Your task to perform on an android device: turn off wifi Image 0: 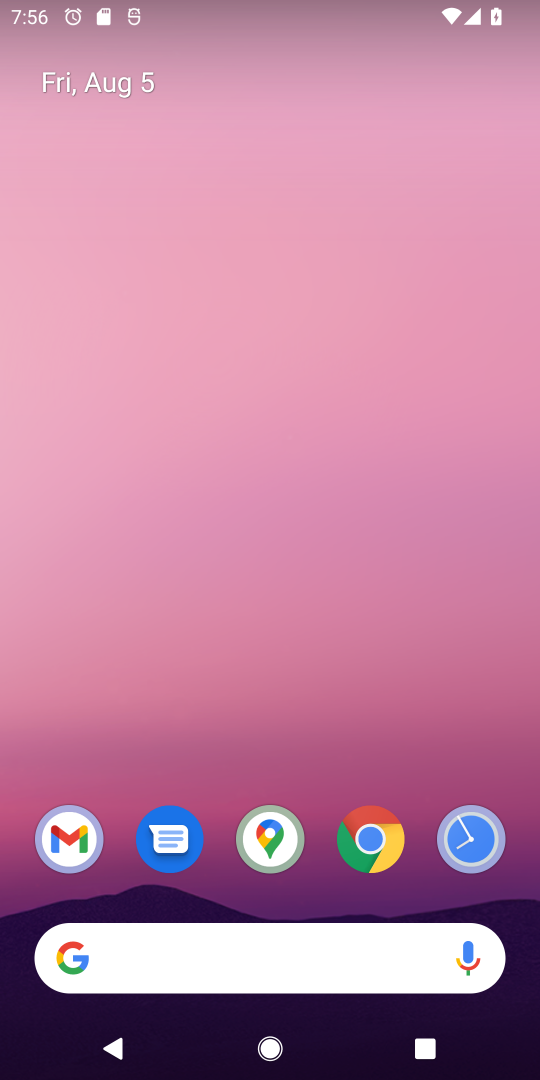
Step 0: drag from (337, 768) to (352, 167)
Your task to perform on an android device: turn off wifi Image 1: 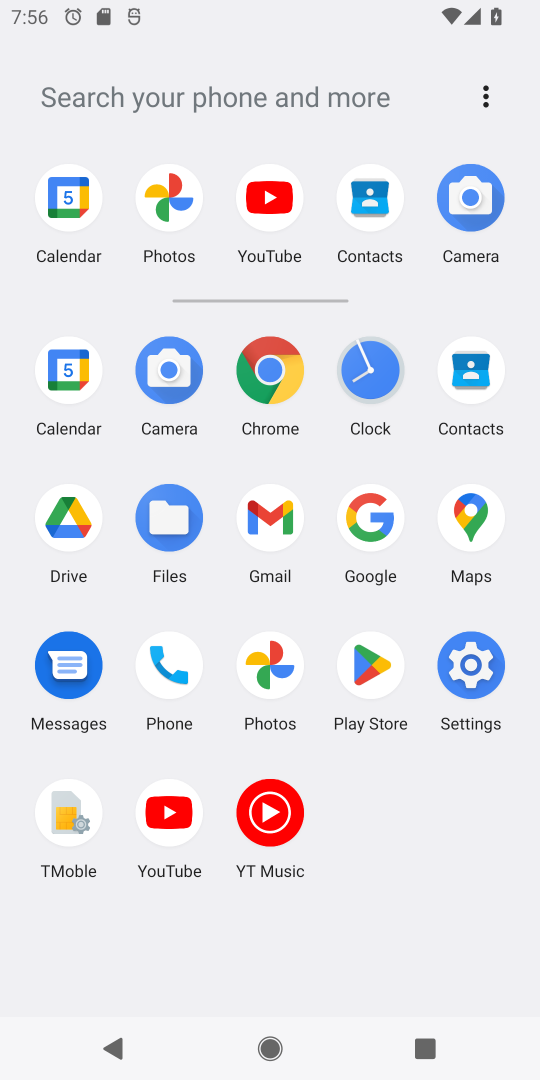
Step 1: click (456, 680)
Your task to perform on an android device: turn off wifi Image 2: 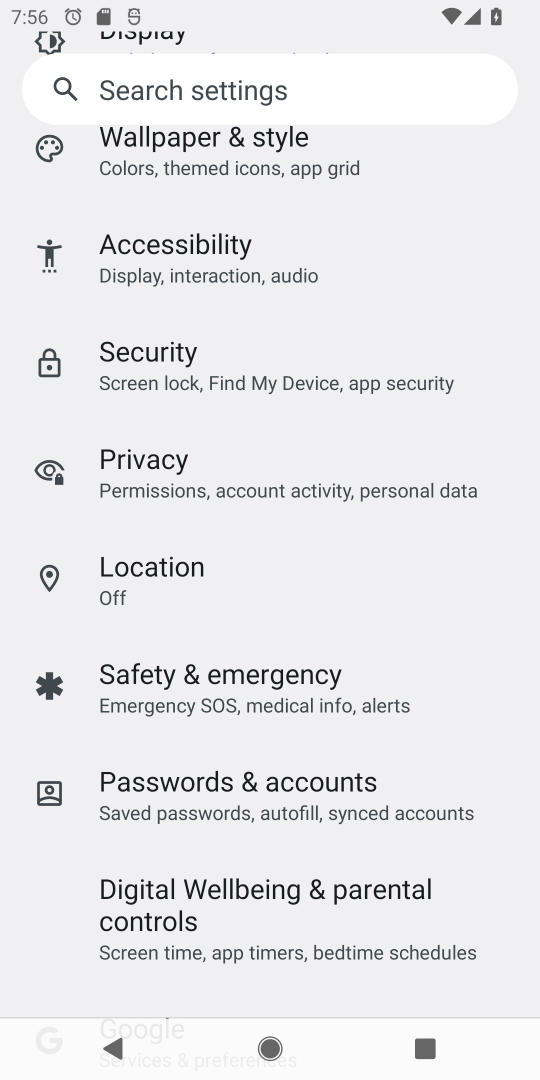
Step 2: drag from (295, 308) to (295, 803)
Your task to perform on an android device: turn off wifi Image 3: 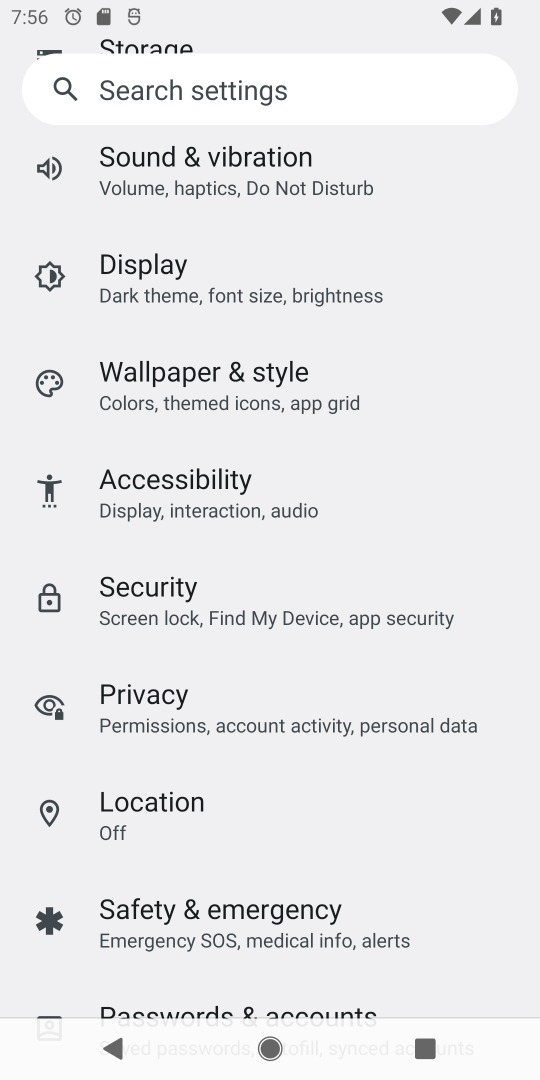
Step 3: drag from (191, 246) to (288, 840)
Your task to perform on an android device: turn off wifi Image 4: 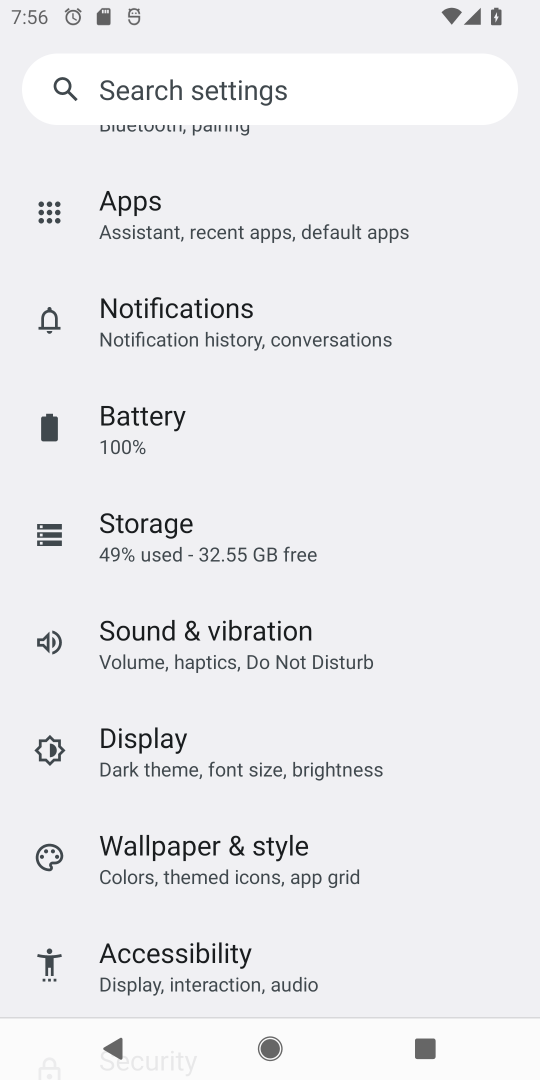
Step 4: drag from (242, 306) to (289, 901)
Your task to perform on an android device: turn off wifi Image 5: 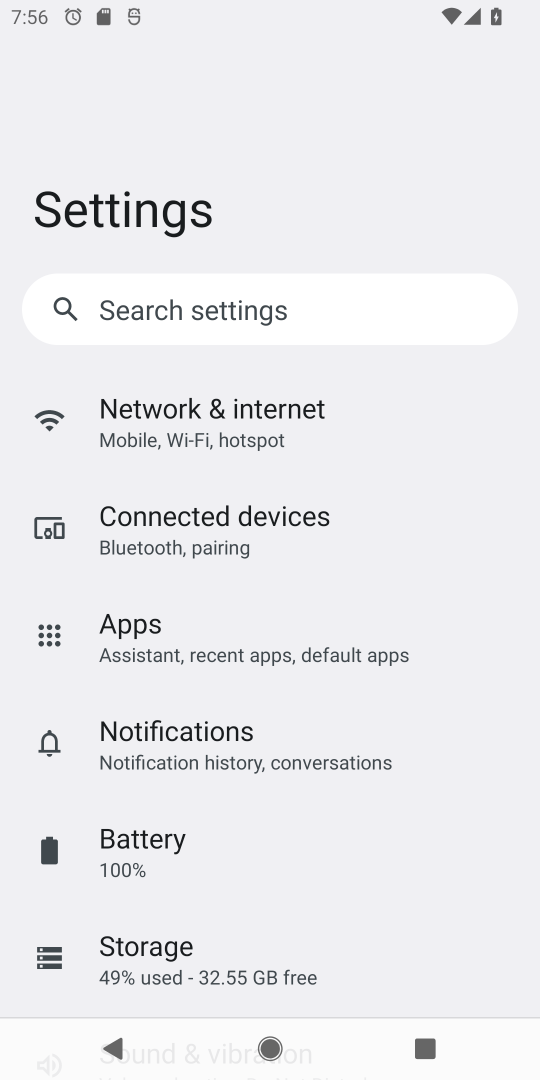
Step 5: click (208, 435)
Your task to perform on an android device: turn off wifi Image 6: 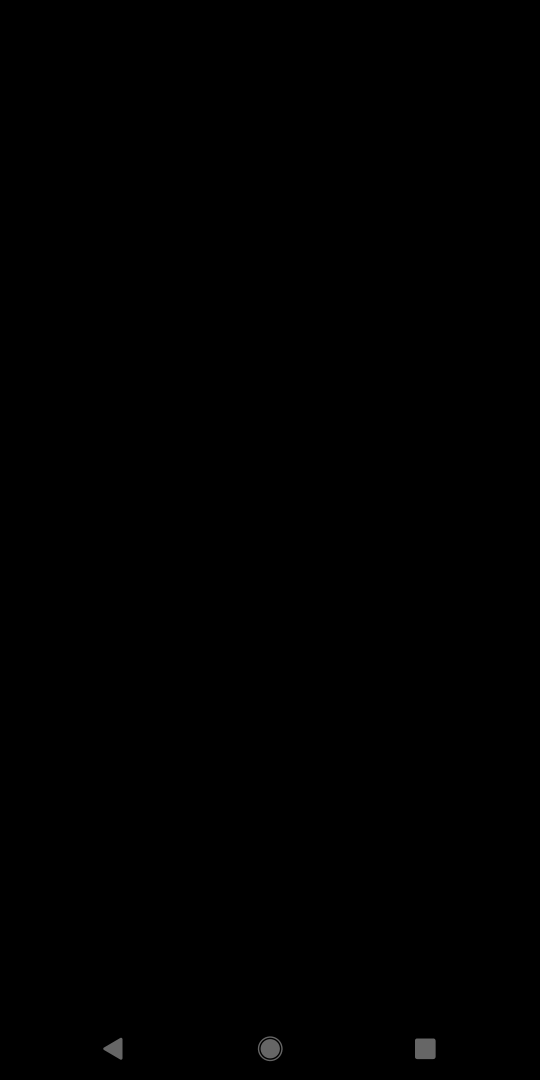
Step 6: click (208, 435)
Your task to perform on an android device: turn off wifi Image 7: 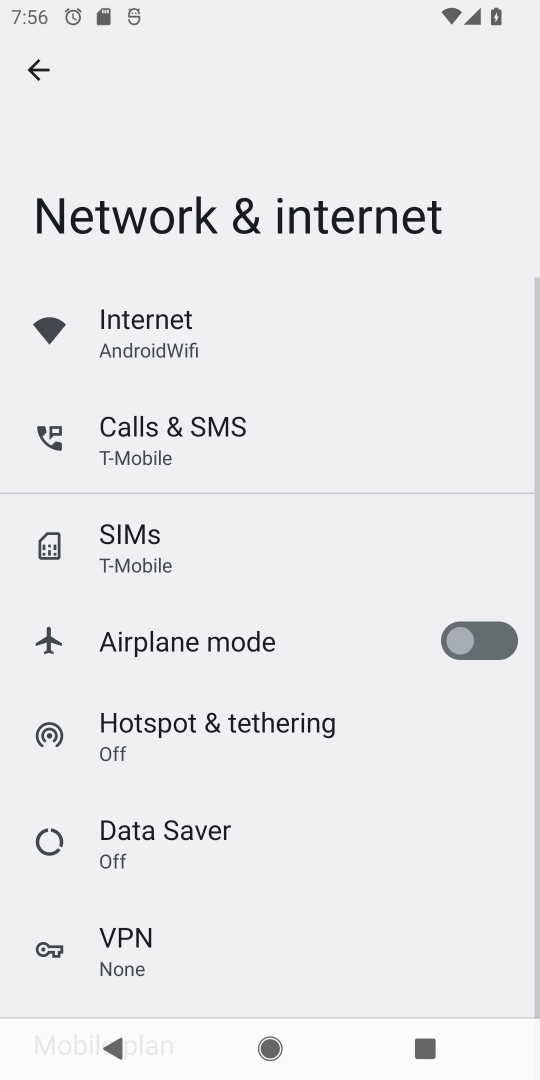
Step 7: click (154, 350)
Your task to perform on an android device: turn off wifi Image 8: 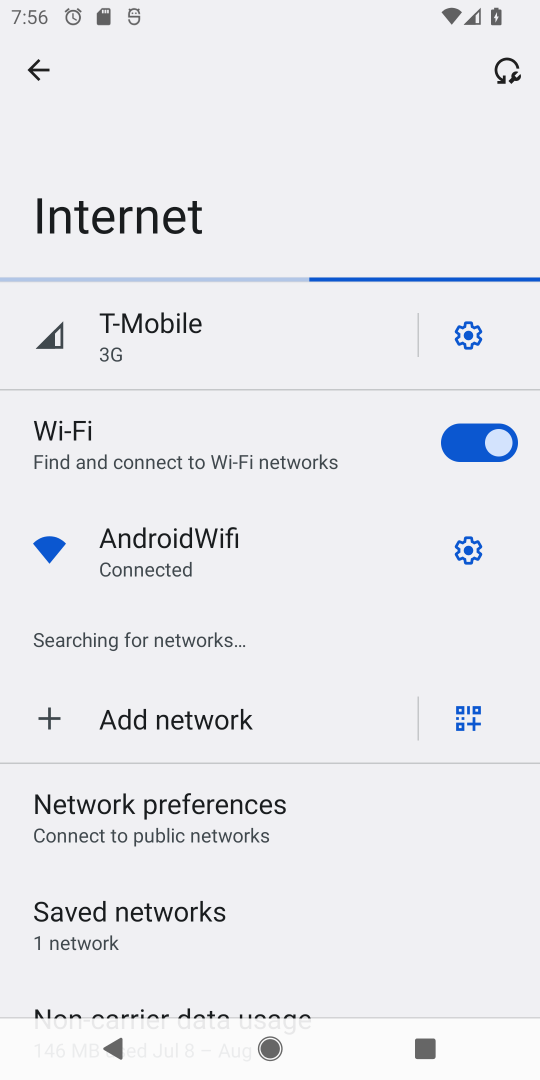
Step 8: click (453, 453)
Your task to perform on an android device: turn off wifi Image 9: 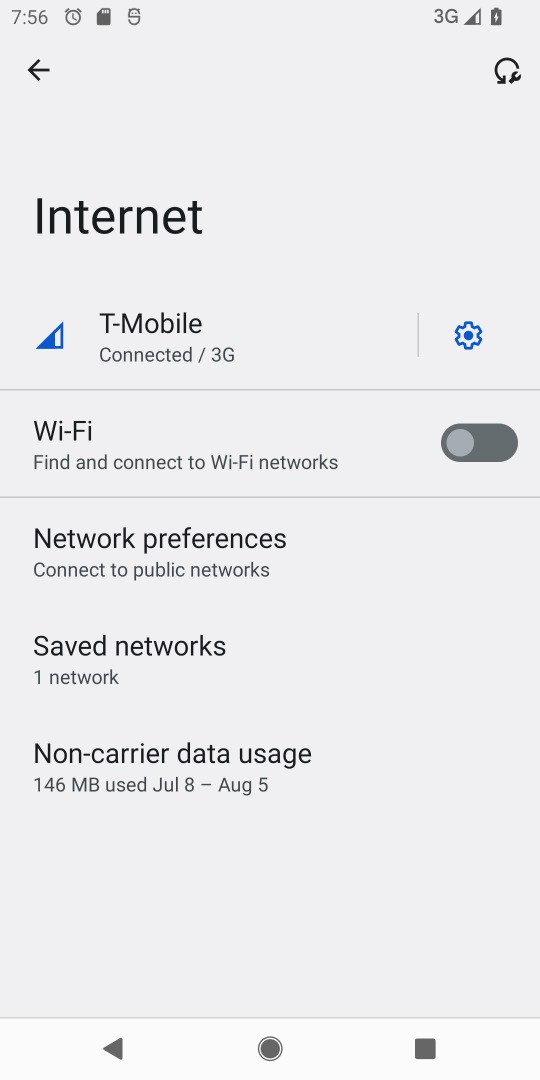
Step 9: task complete